Your task to perform on an android device: star an email in the gmail app Image 0: 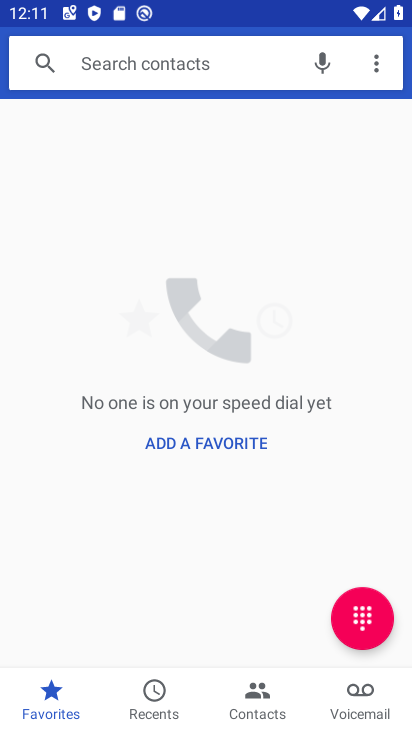
Step 0: press back button
Your task to perform on an android device: star an email in the gmail app Image 1: 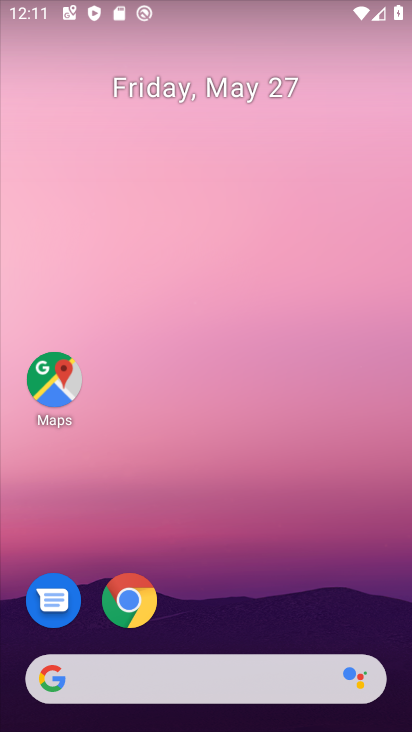
Step 1: drag from (279, 602) to (200, 0)
Your task to perform on an android device: star an email in the gmail app Image 2: 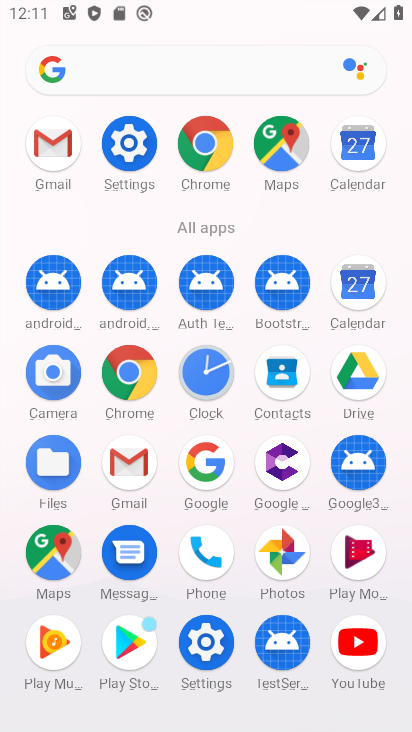
Step 2: click (127, 457)
Your task to perform on an android device: star an email in the gmail app Image 3: 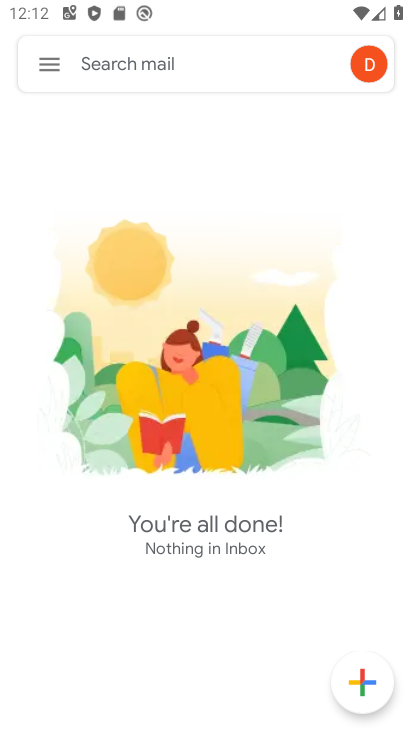
Step 3: click (55, 67)
Your task to perform on an android device: star an email in the gmail app Image 4: 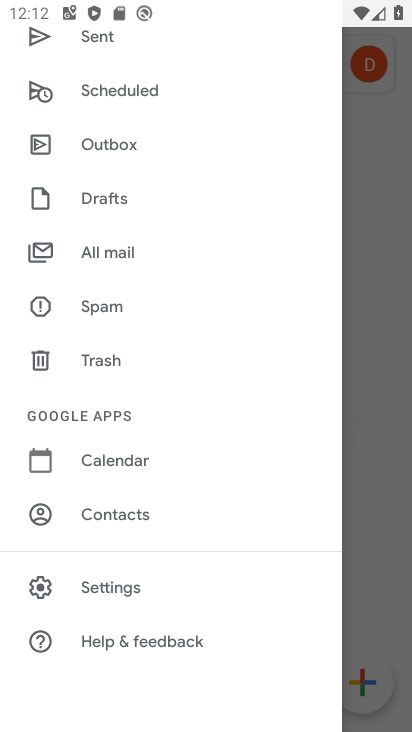
Step 4: drag from (162, 100) to (210, 552)
Your task to perform on an android device: star an email in the gmail app Image 5: 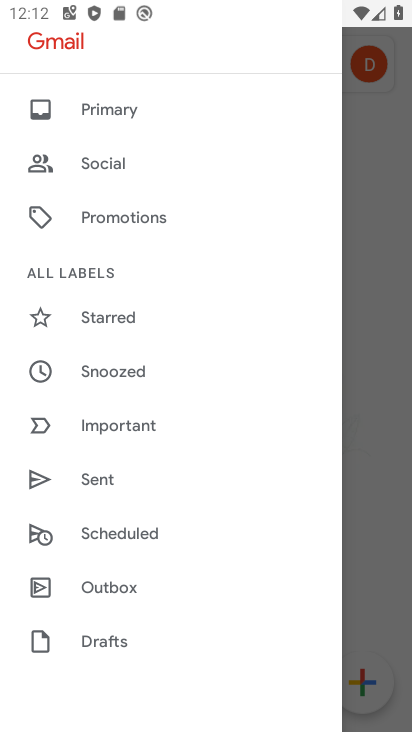
Step 5: drag from (201, 156) to (199, 577)
Your task to perform on an android device: star an email in the gmail app Image 6: 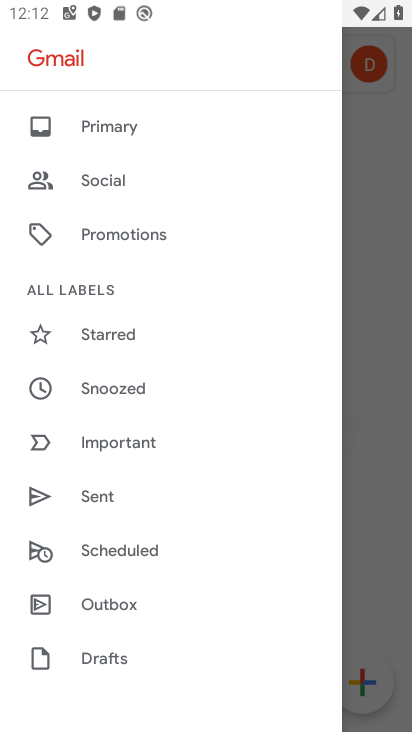
Step 6: click (126, 327)
Your task to perform on an android device: star an email in the gmail app Image 7: 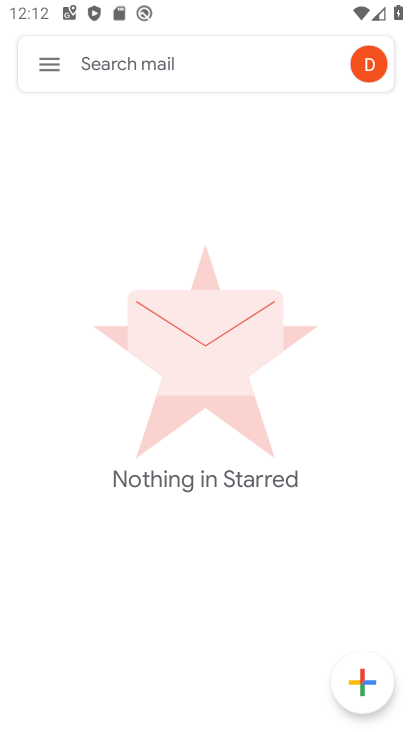
Step 7: click (48, 65)
Your task to perform on an android device: star an email in the gmail app Image 8: 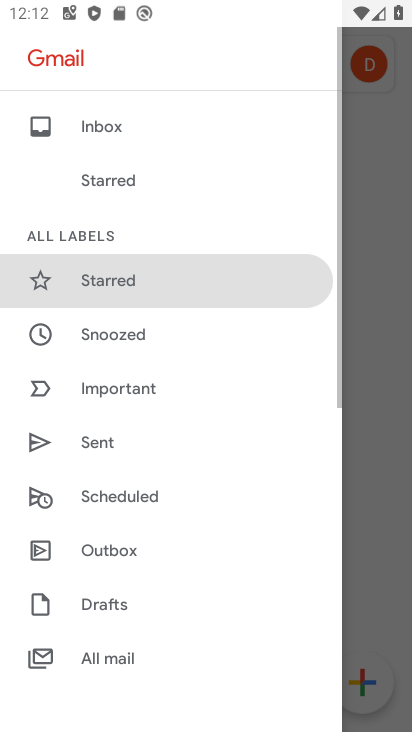
Step 8: click (147, 124)
Your task to perform on an android device: star an email in the gmail app Image 9: 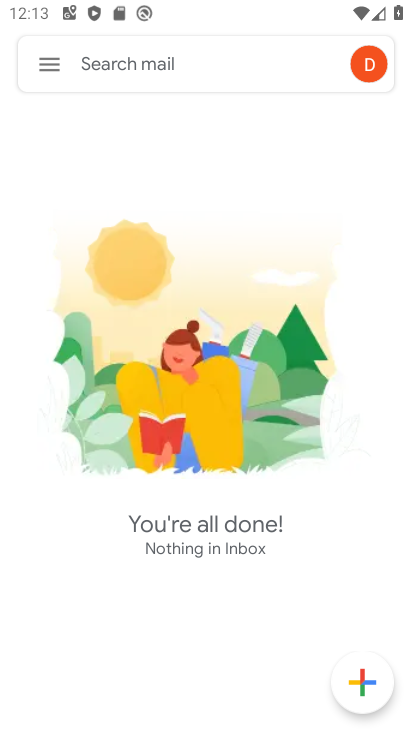
Step 9: task complete